Your task to perform on an android device: toggle data saver in the chrome app Image 0: 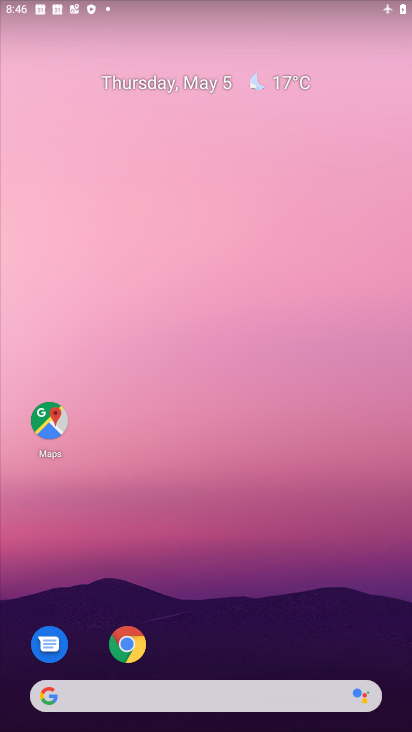
Step 0: drag from (199, 648) to (241, 200)
Your task to perform on an android device: toggle data saver in the chrome app Image 1: 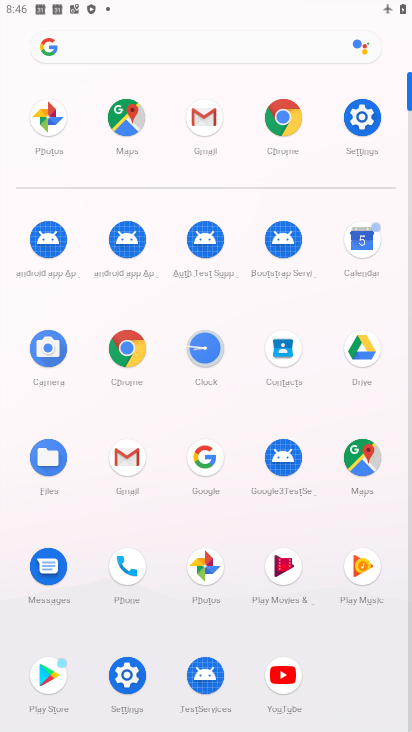
Step 1: click (125, 344)
Your task to perform on an android device: toggle data saver in the chrome app Image 2: 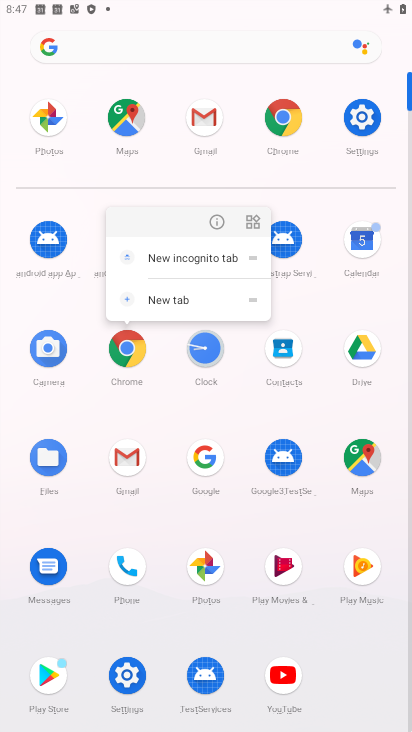
Step 2: click (212, 219)
Your task to perform on an android device: toggle data saver in the chrome app Image 3: 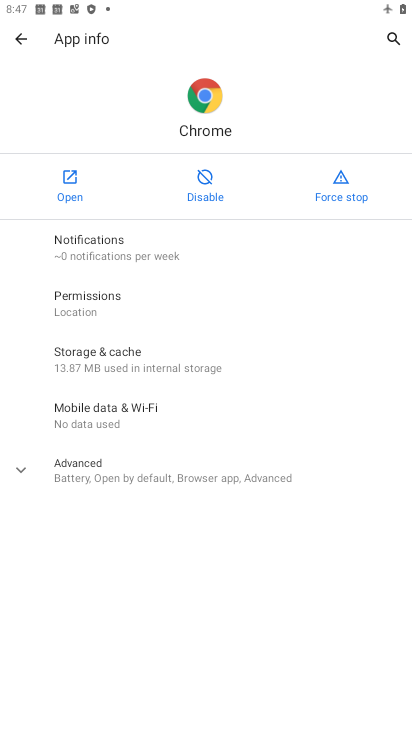
Step 3: click (36, 194)
Your task to perform on an android device: toggle data saver in the chrome app Image 4: 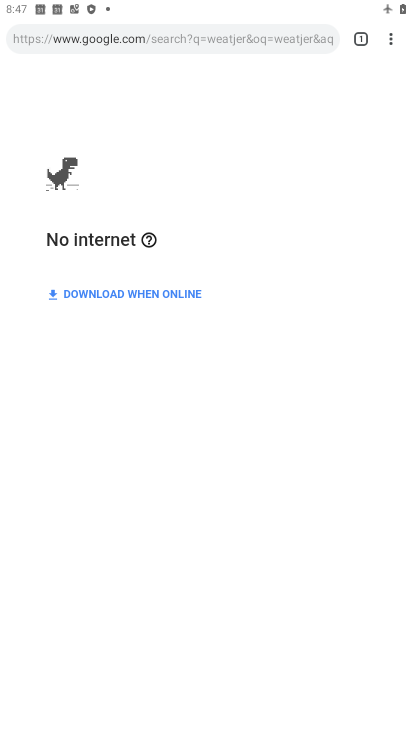
Step 4: click (396, 40)
Your task to perform on an android device: toggle data saver in the chrome app Image 5: 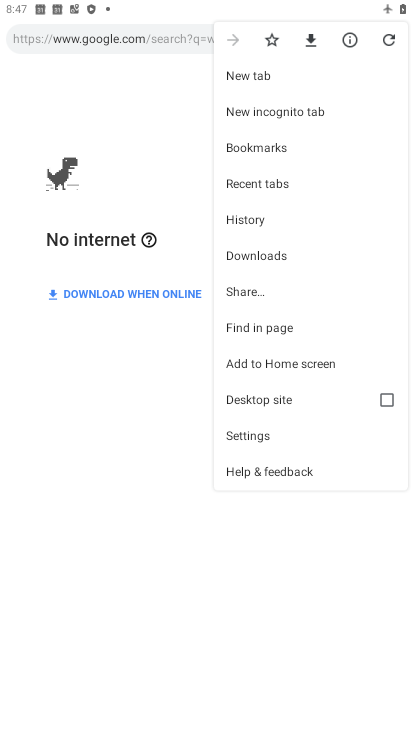
Step 5: click (258, 433)
Your task to perform on an android device: toggle data saver in the chrome app Image 6: 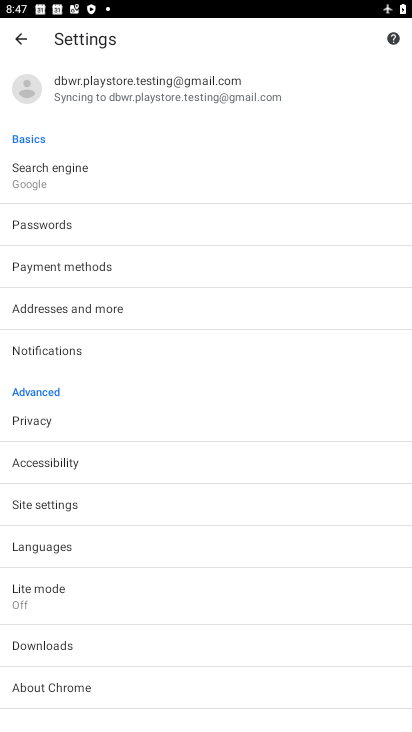
Step 6: click (66, 585)
Your task to perform on an android device: toggle data saver in the chrome app Image 7: 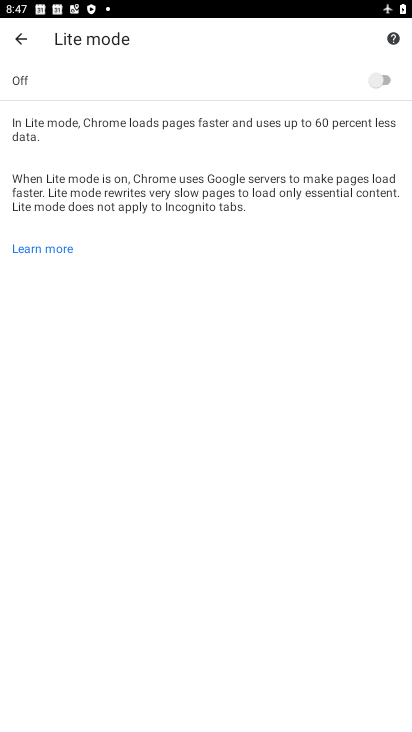
Step 7: click (373, 78)
Your task to perform on an android device: toggle data saver in the chrome app Image 8: 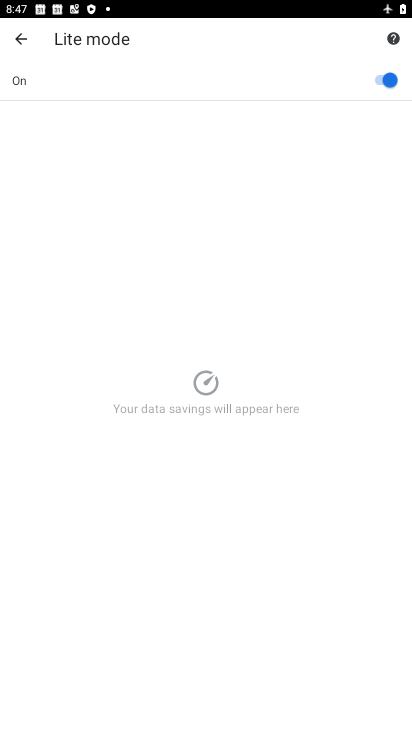
Step 8: task complete